Your task to perform on an android device: turn on priority inbox in the gmail app Image 0: 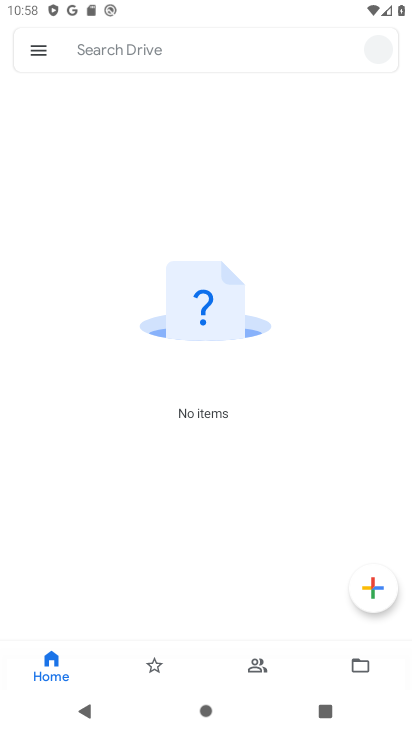
Step 0: press home button
Your task to perform on an android device: turn on priority inbox in the gmail app Image 1: 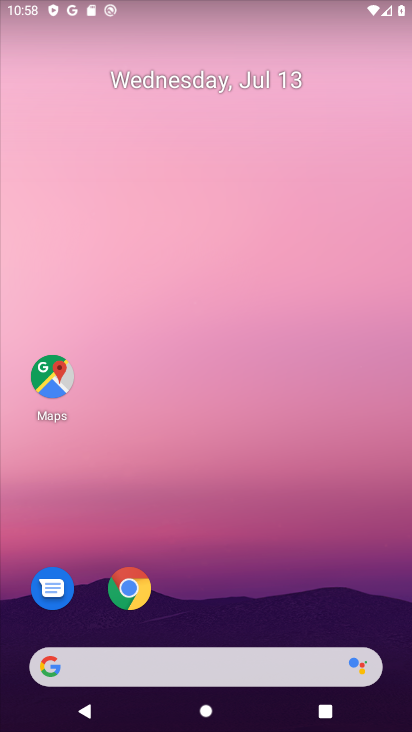
Step 1: drag from (227, 592) to (253, 114)
Your task to perform on an android device: turn on priority inbox in the gmail app Image 2: 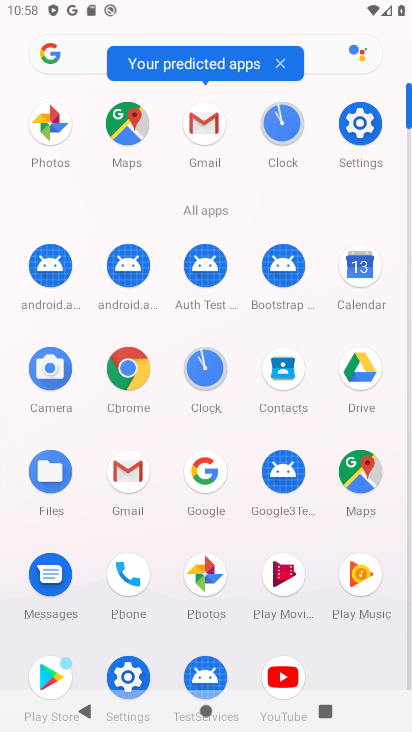
Step 2: click (126, 473)
Your task to perform on an android device: turn on priority inbox in the gmail app Image 3: 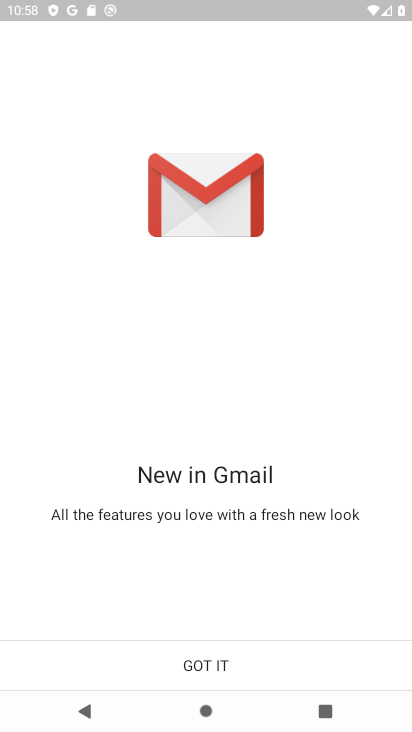
Step 3: click (205, 653)
Your task to perform on an android device: turn on priority inbox in the gmail app Image 4: 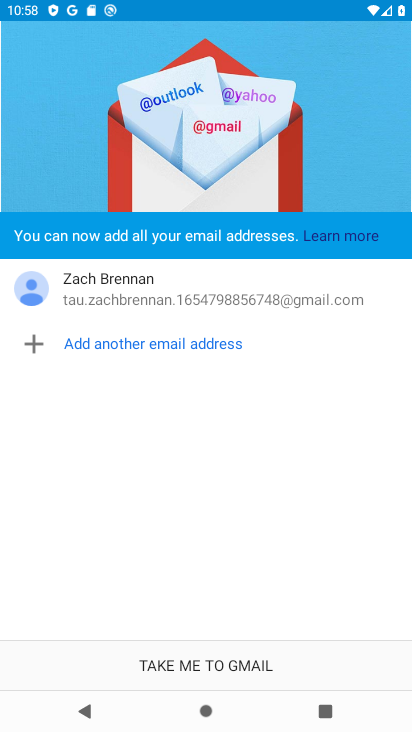
Step 4: click (205, 653)
Your task to perform on an android device: turn on priority inbox in the gmail app Image 5: 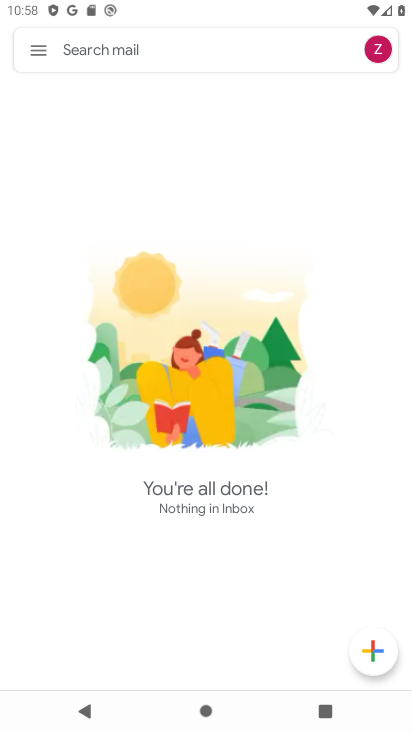
Step 5: click (31, 50)
Your task to perform on an android device: turn on priority inbox in the gmail app Image 6: 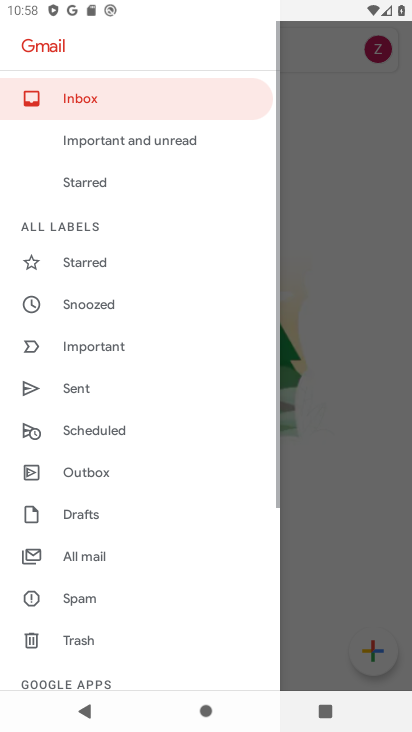
Step 6: drag from (146, 614) to (154, 248)
Your task to perform on an android device: turn on priority inbox in the gmail app Image 7: 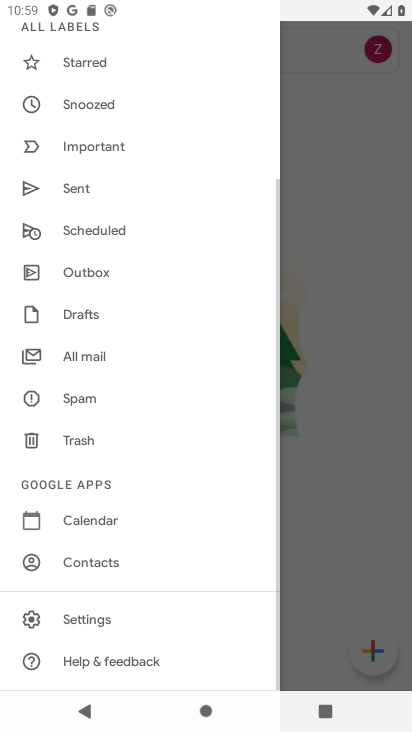
Step 7: click (89, 624)
Your task to perform on an android device: turn on priority inbox in the gmail app Image 8: 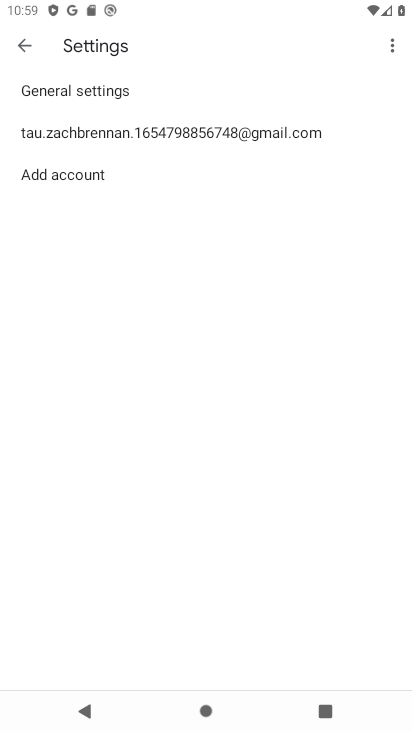
Step 8: click (137, 135)
Your task to perform on an android device: turn on priority inbox in the gmail app Image 9: 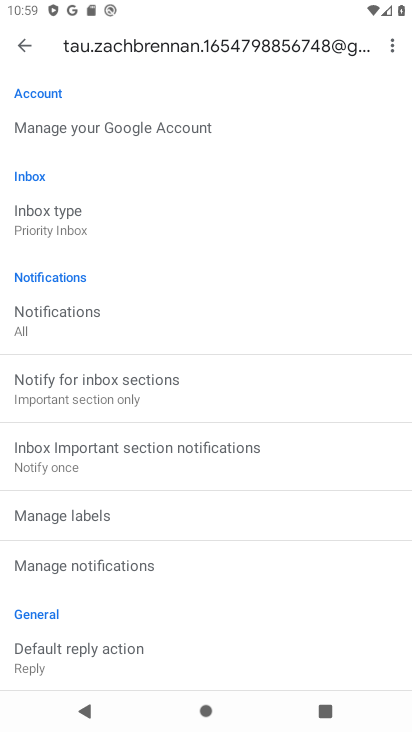
Step 9: task complete